Your task to perform on an android device: turn on wifi Image 0: 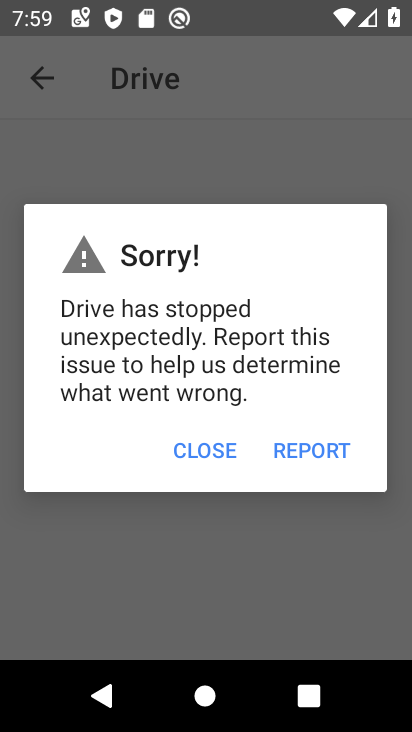
Step 0: press back button
Your task to perform on an android device: turn on wifi Image 1: 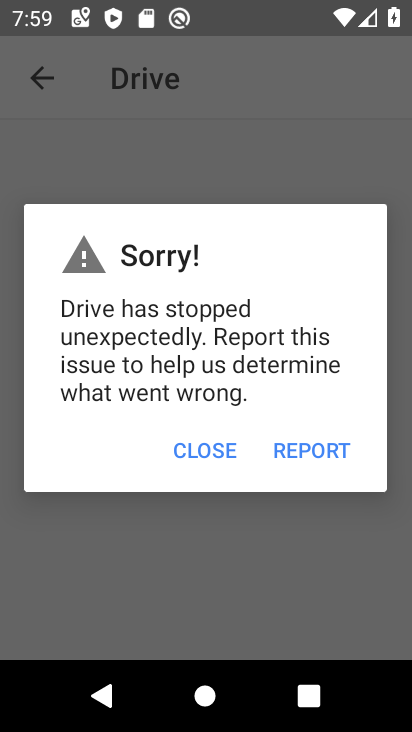
Step 1: press home button
Your task to perform on an android device: turn on wifi Image 2: 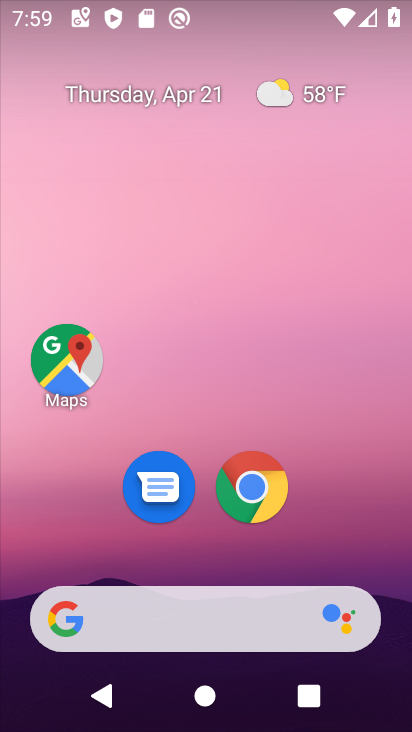
Step 2: drag from (327, 519) to (234, 5)
Your task to perform on an android device: turn on wifi Image 3: 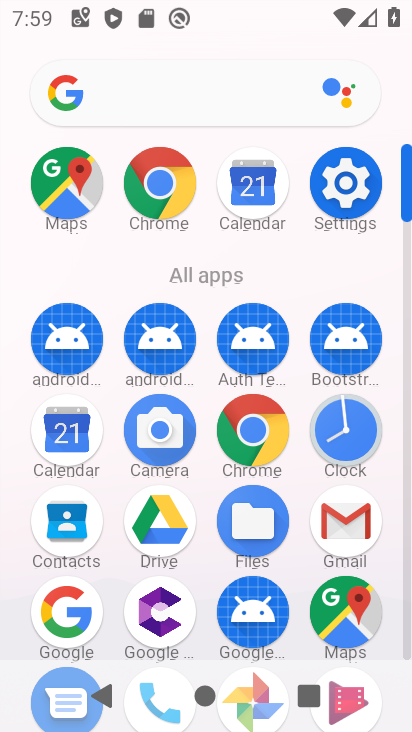
Step 3: click (344, 182)
Your task to perform on an android device: turn on wifi Image 4: 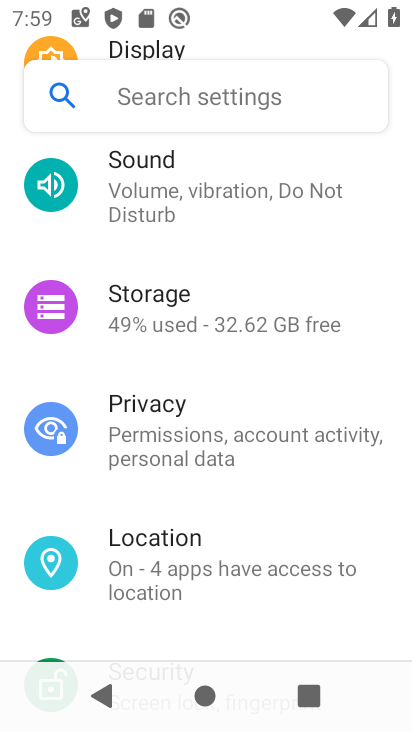
Step 4: drag from (331, 173) to (307, 488)
Your task to perform on an android device: turn on wifi Image 5: 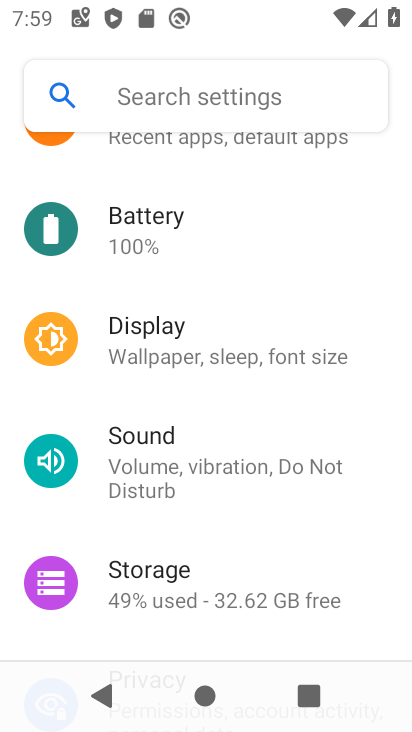
Step 5: drag from (276, 153) to (273, 490)
Your task to perform on an android device: turn on wifi Image 6: 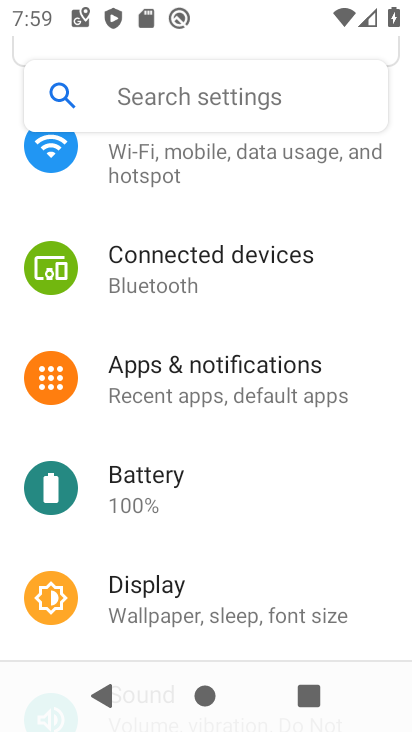
Step 6: drag from (244, 252) to (246, 548)
Your task to perform on an android device: turn on wifi Image 7: 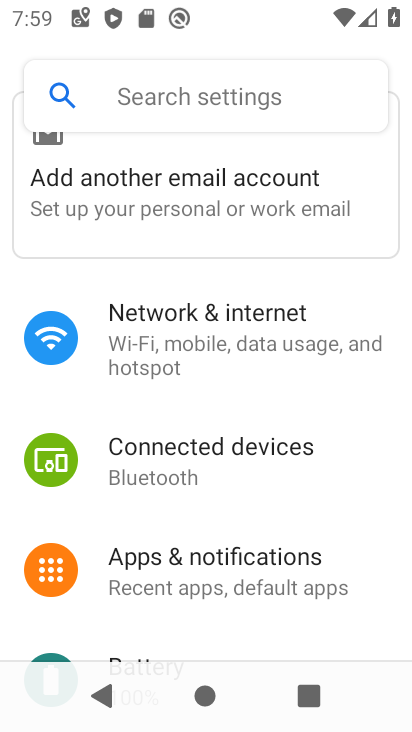
Step 7: click (230, 331)
Your task to perform on an android device: turn on wifi Image 8: 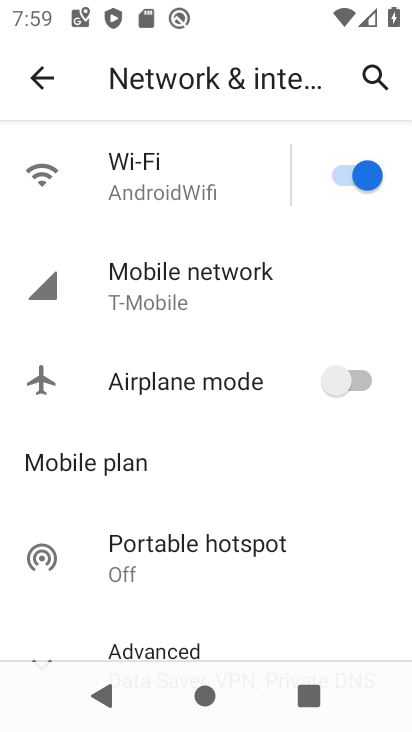
Step 8: task complete